Your task to perform on an android device: turn off javascript in the chrome app Image 0: 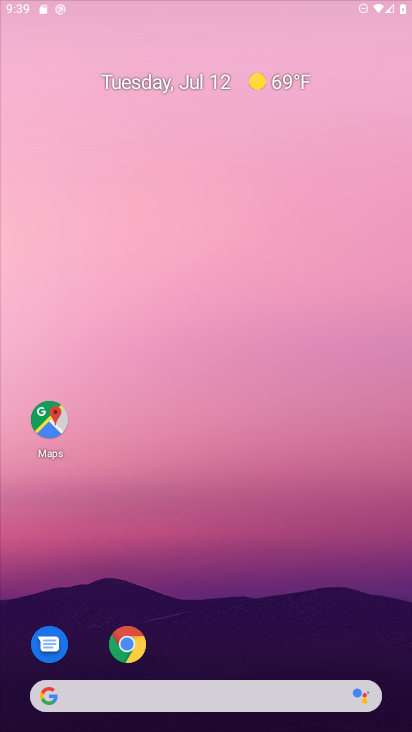
Step 0: press home button
Your task to perform on an android device: turn off javascript in the chrome app Image 1: 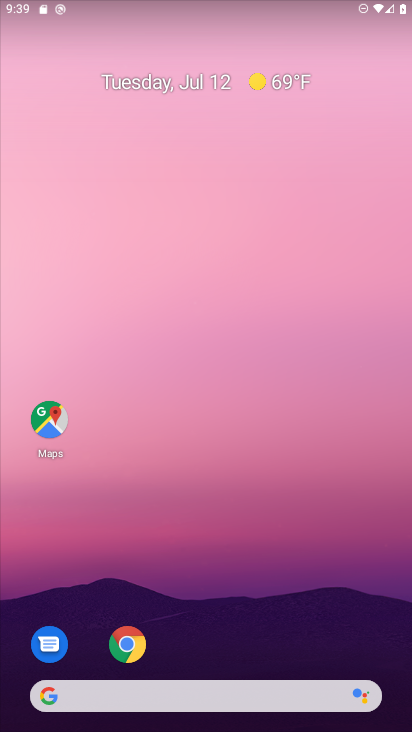
Step 1: click (124, 638)
Your task to perform on an android device: turn off javascript in the chrome app Image 2: 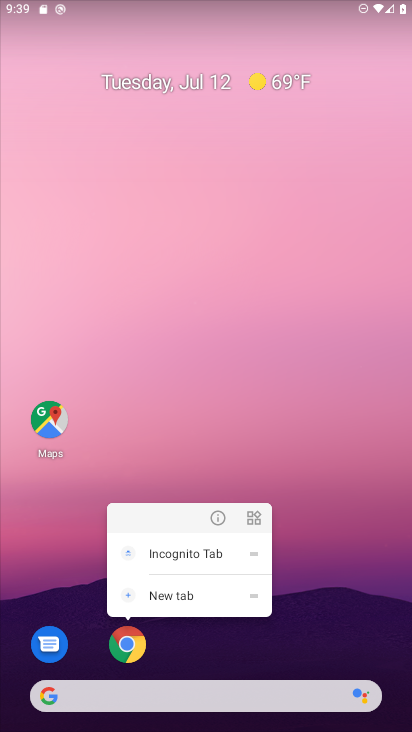
Step 2: click (124, 638)
Your task to perform on an android device: turn off javascript in the chrome app Image 3: 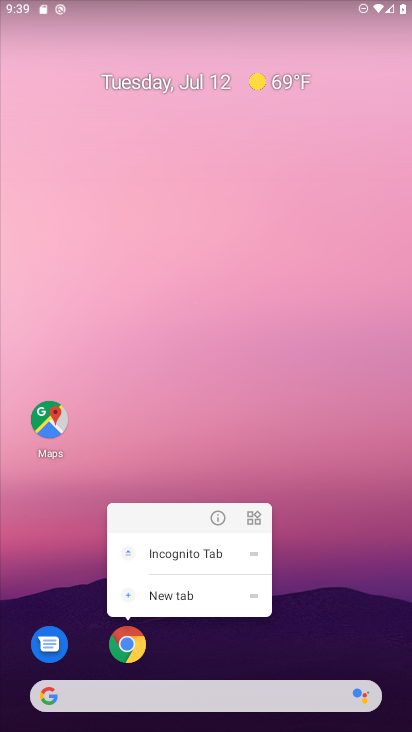
Step 3: click (124, 638)
Your task to perform on an android device: turn off javascript in the chrome app Image 4: 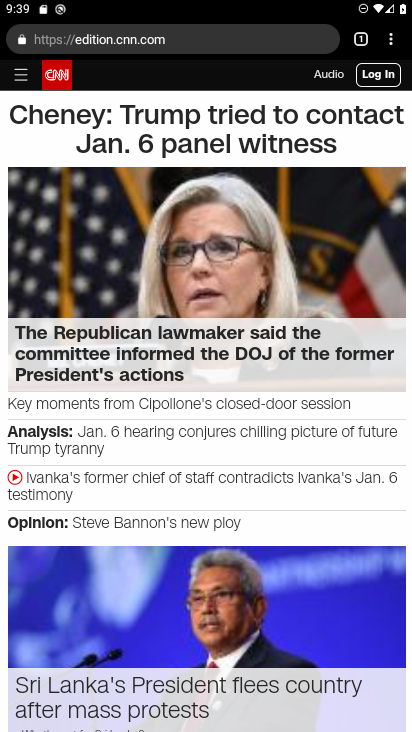
Step 4: click (359, 35)
Your task to perform on an android device: turn off javascript in the chrome app Image 5: 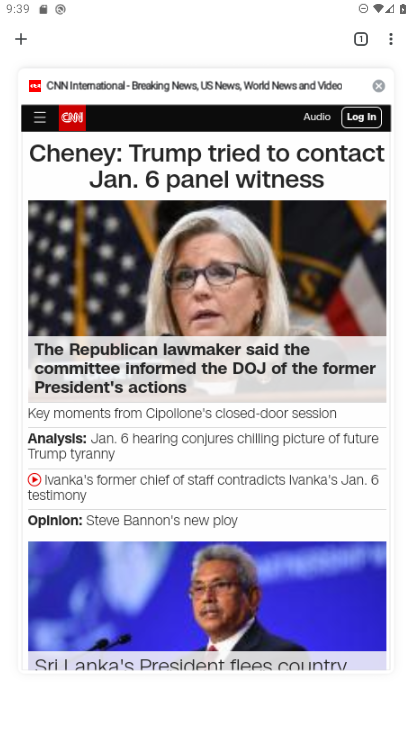
Step 5: click (375, 83)
Your task to perform on an android device: turn off javascript in the chrome app Image 6: 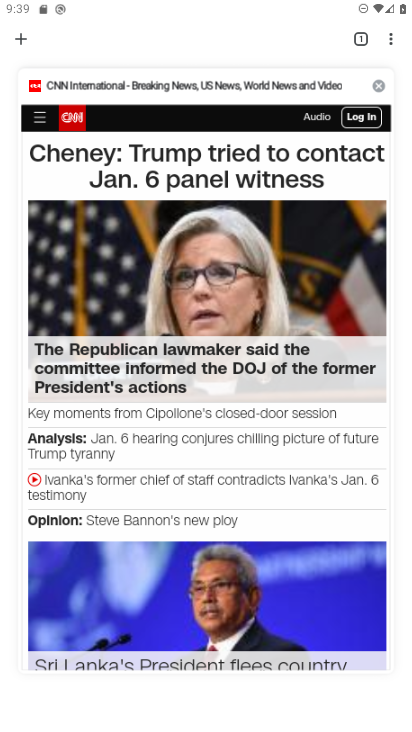
Step 6: click (16, 35)
Your task to perform on an android device: turn off javascript in the chrome app Image 7: 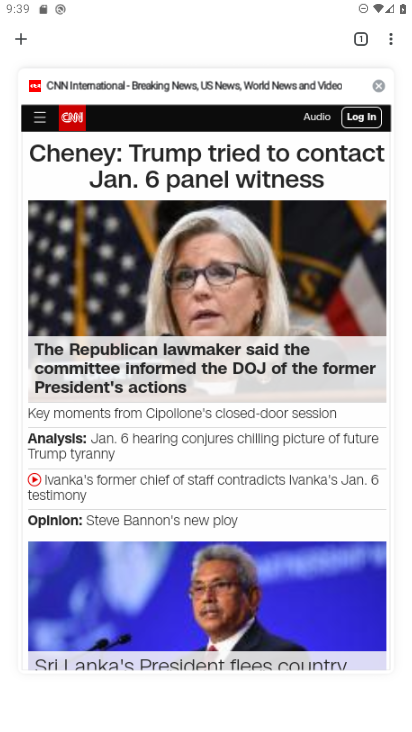
Step 7: click (21, 34)
Your task to perform on an android device: turn off javascript in the chrome app Image 8: 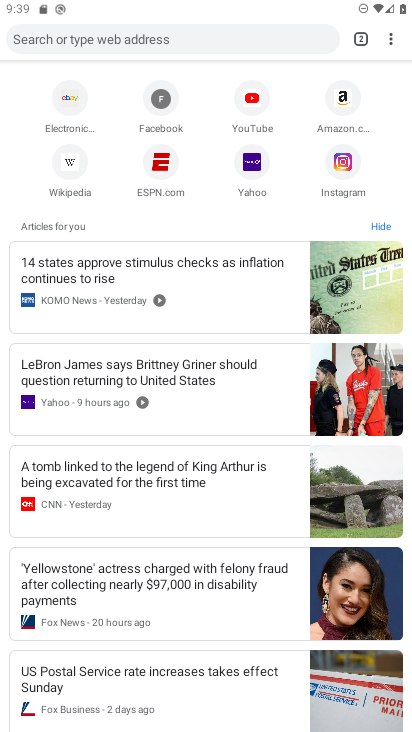
Step 8: click (394, 37)
Your task to perform on an android device: turn off javascript in the chrome app Image 9: 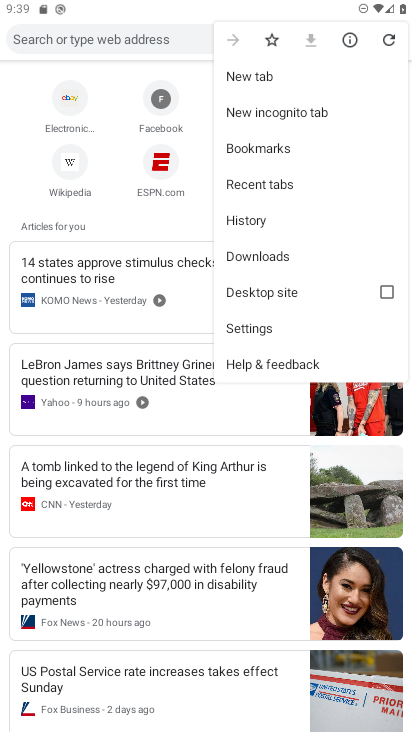
Step 9: click (280, 325)
Your task to perform on an android device: turn off javascript in the chrome app Image 10: 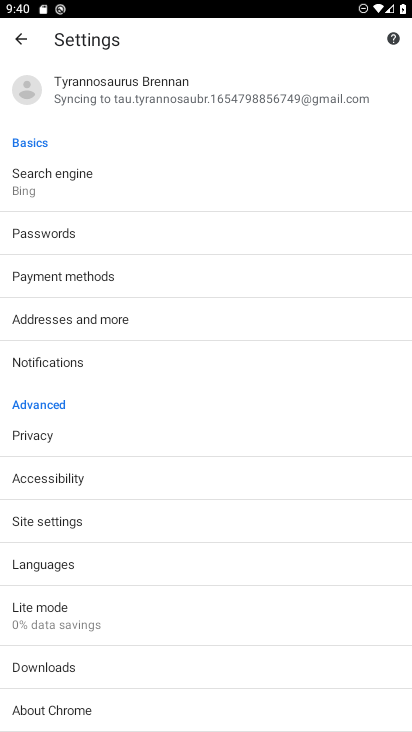
Step 10: click (97, 517)
Your task to perform on an android device: turn off javascript in the chrome app Image 11: 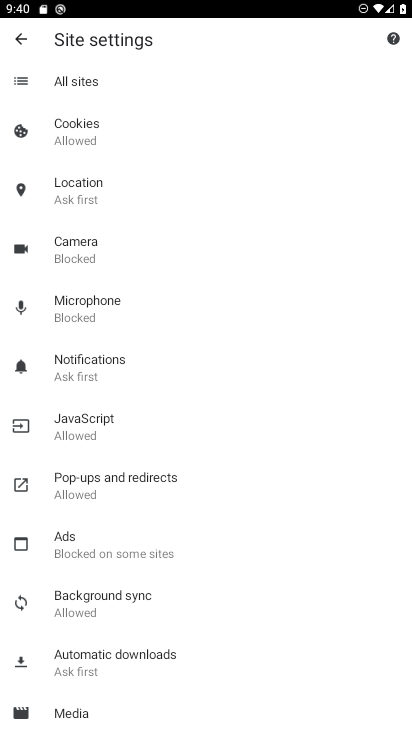
Step 11: click (111, 425)
Your task to perform on an android device: turn off javascript in the chrome app Image 12: 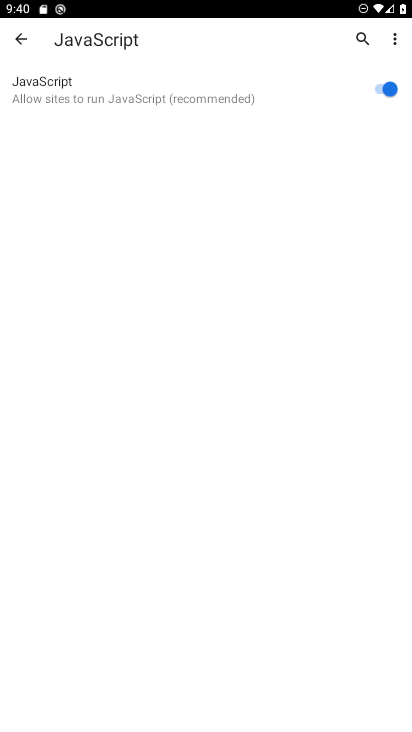
Step 12: click (378, 88)
Your task to perform on an android device: turn off javascript in the chrome app Image 13: 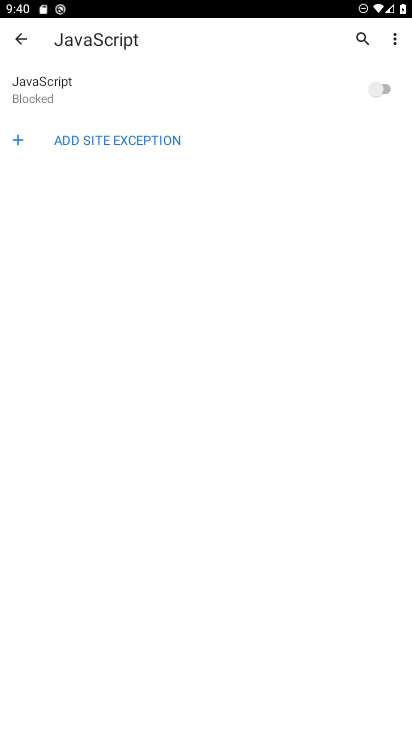
Step 13: task complete